Your task to perform on an android device: What is the recent news? Image 0: 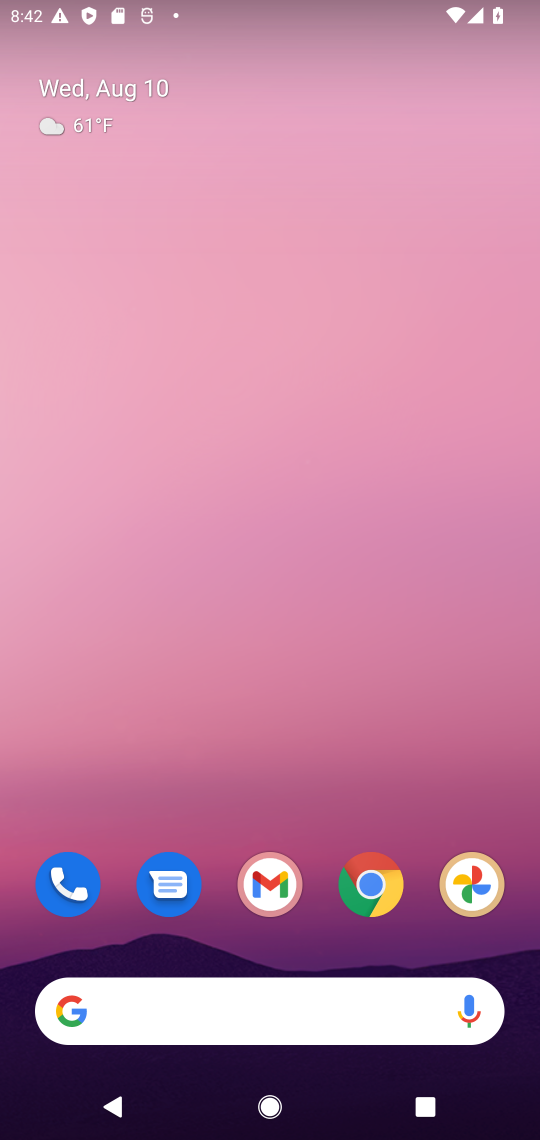
Step 0: click (160, 1016)
Your task to perform on an android device: What is the recent news? Image 1: 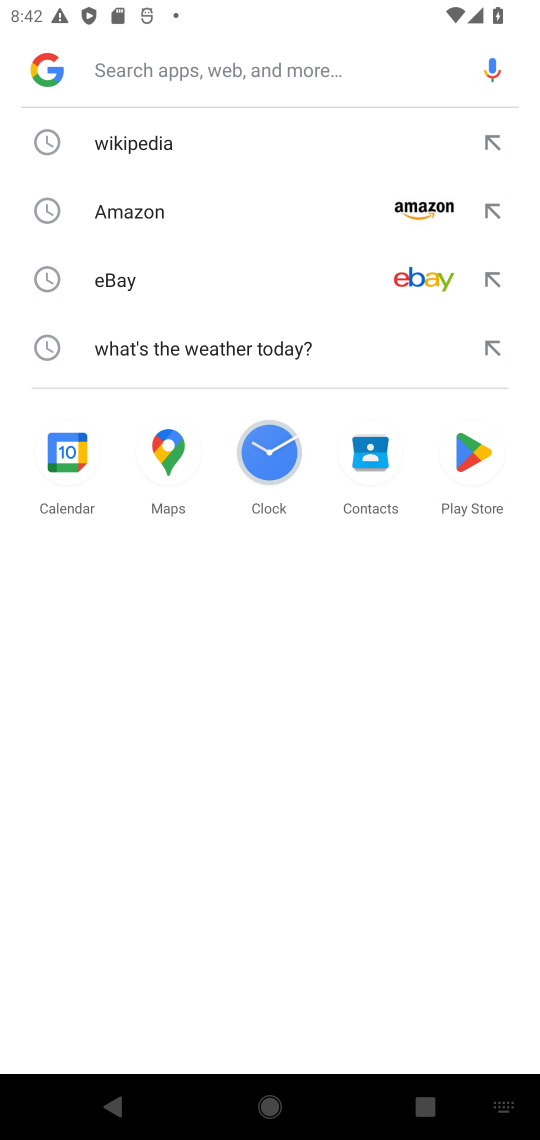
Step 1: type "What is the recent news?"
Your task to perform on an android device: What is the recent news? Image 2: 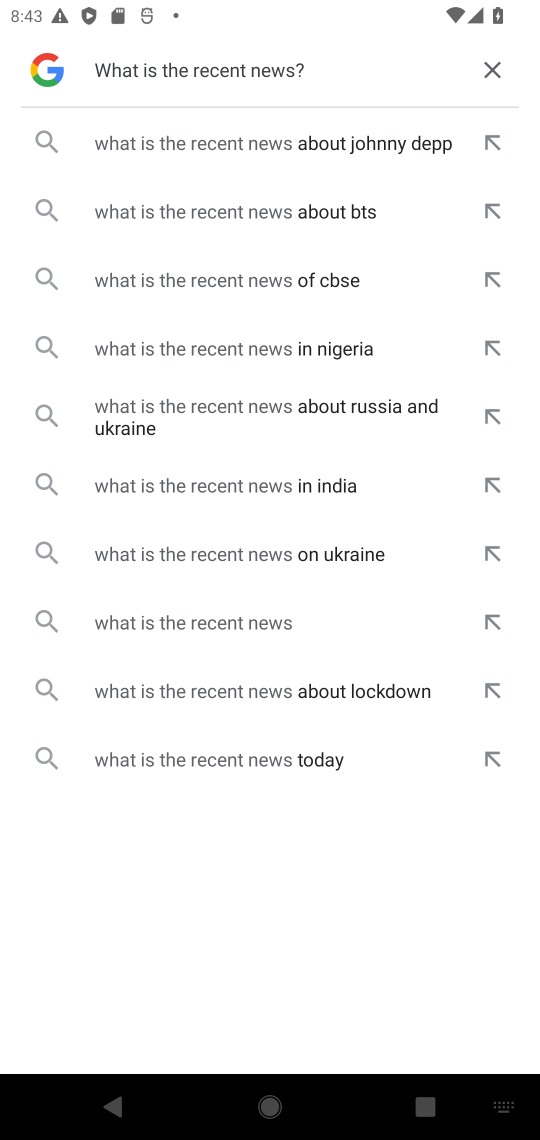
Step 2: type ""
Your task to perform on an android device: What is the recent news? Image 3: 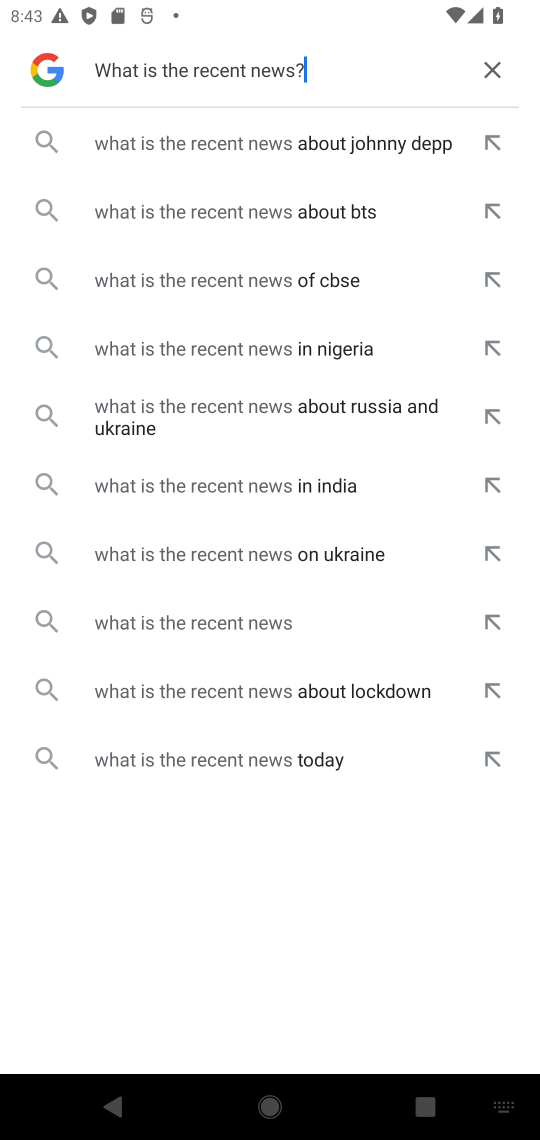
Step 3: type ""
Your task to perform on an android device: What is the recent news? Image 4: 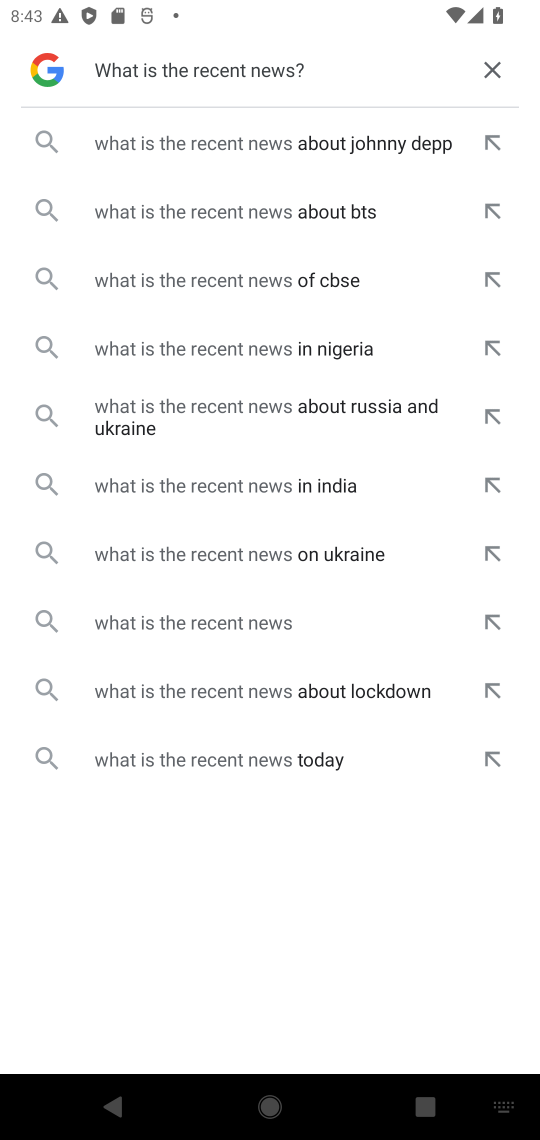
Step 4: task complete